Your task to perform on an android device: turn off airplane mode Image 0: 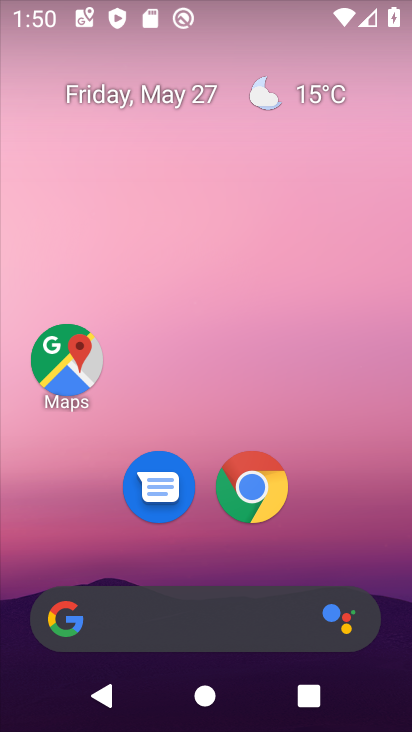
Step 0: drag from (256, 13) to (170, 633)
Your task to perform on an android device: turn off airplane mode Image 1: 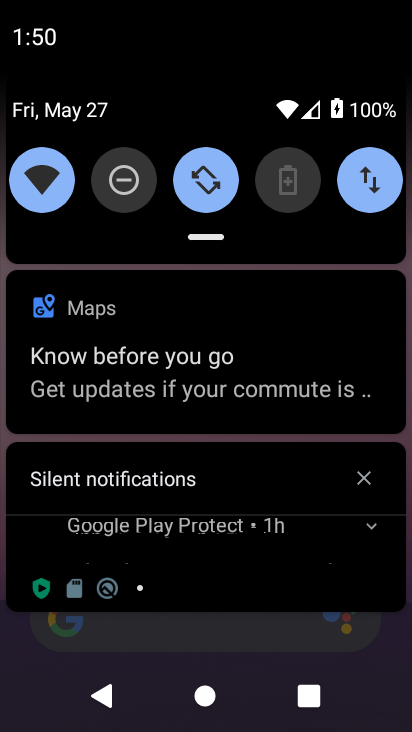
Step 1: task complete